Your task to perform on an android device: open app "Contacts" (install if not already installed) Image 0: 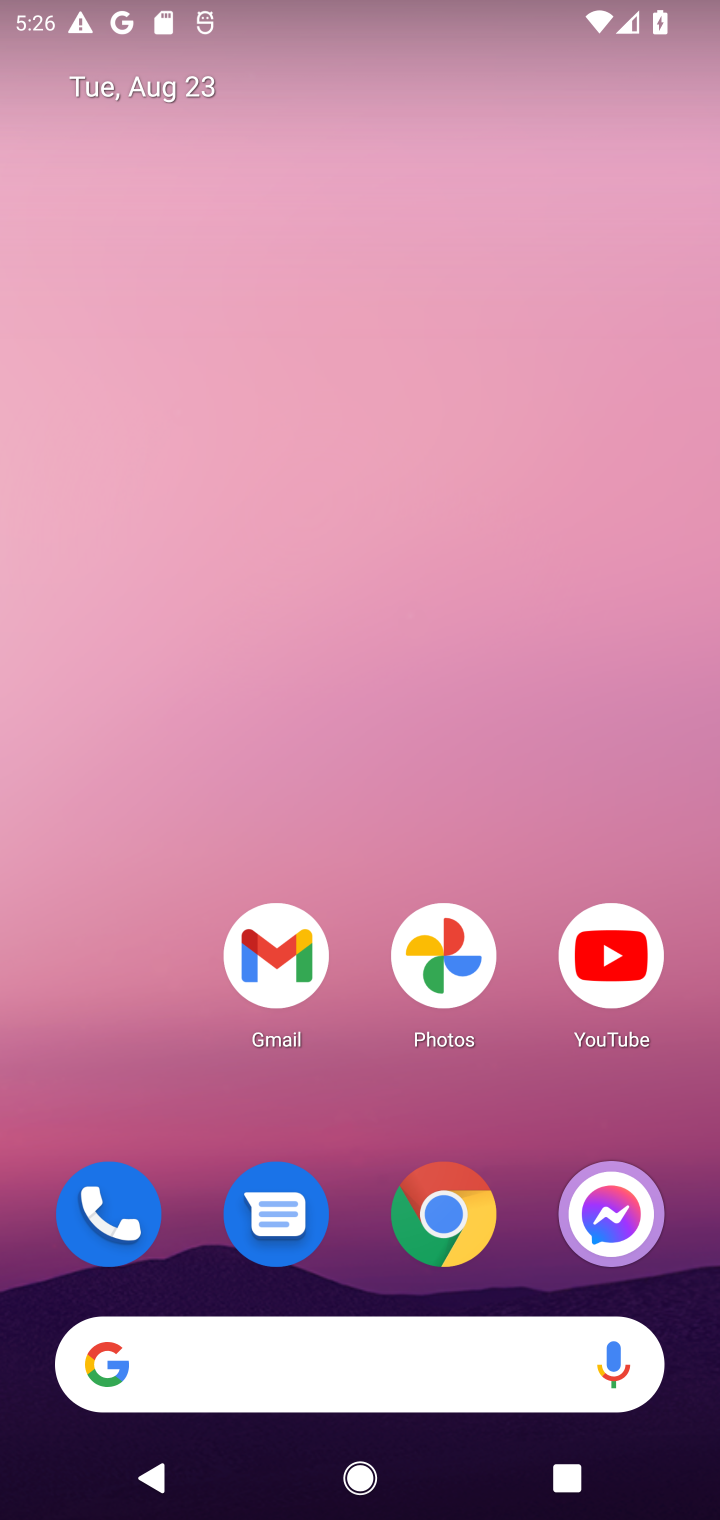
Step 0: drag from (367, 1309) to (396, 312)
Your task to perform on an android device: open app "Contacts" (install if not already installed) Image 1: 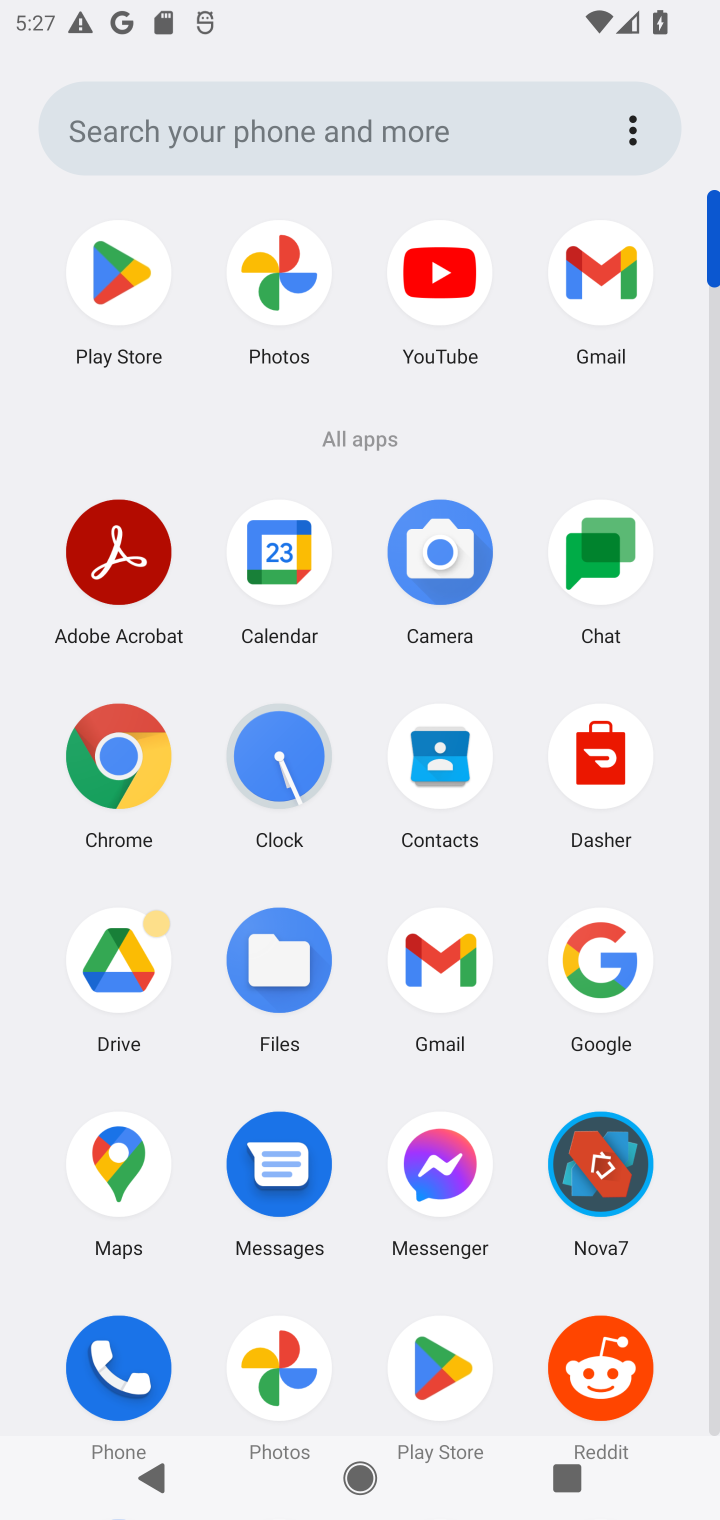
Step 1: click (455, 760)
Your task to perform on an android device: open app "Contacts" (install if not already installed) Image 2: 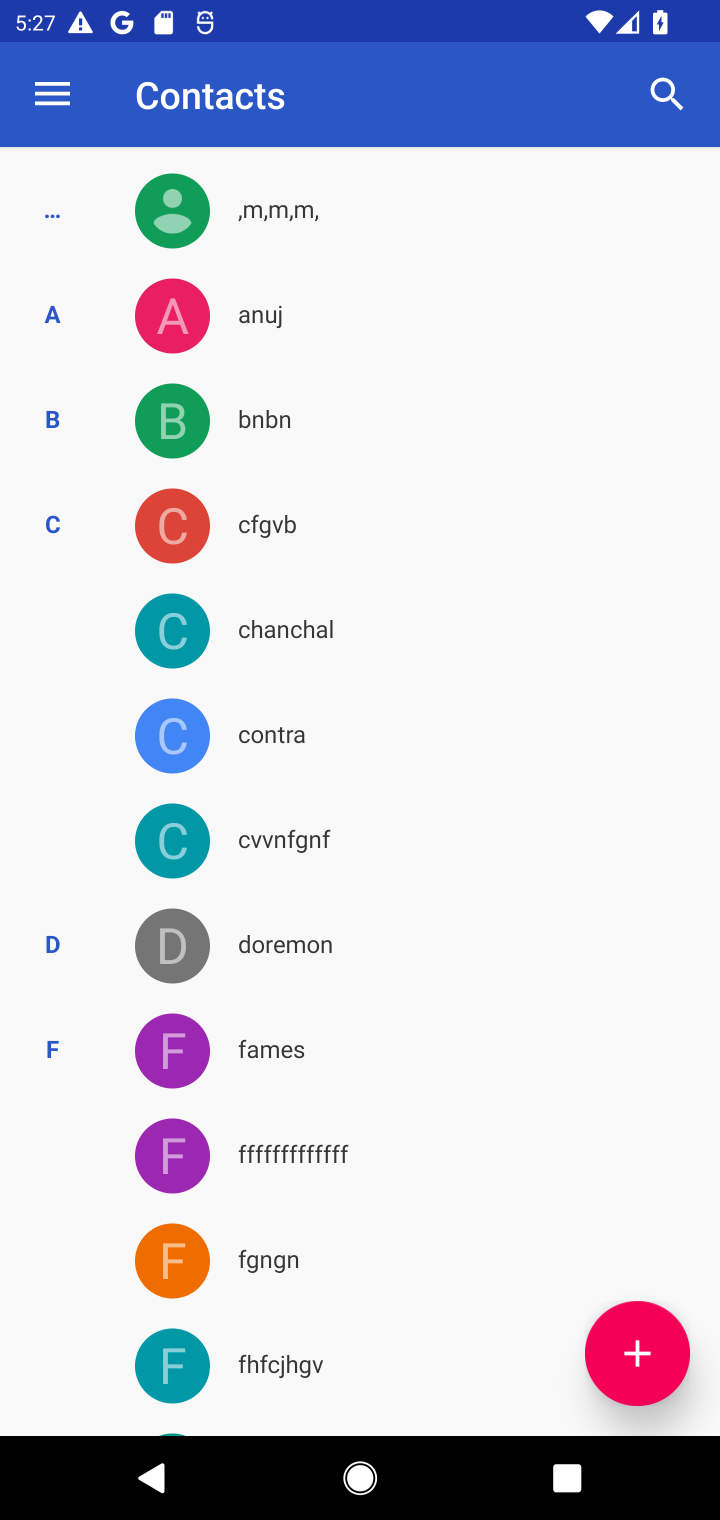
Step 2: task complete